Your task to perform on an android device: change the upload size in google photos Image 0: 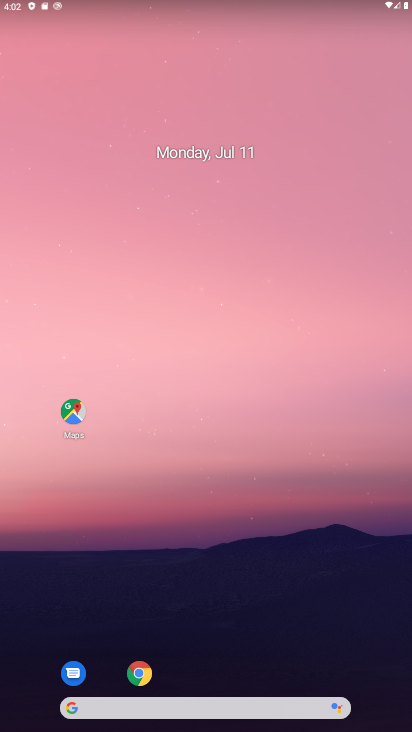
Step 0: drag from (365, 691) to (276, 52)
Your task to perform on an android device: change the upload size in google photos Image 1: 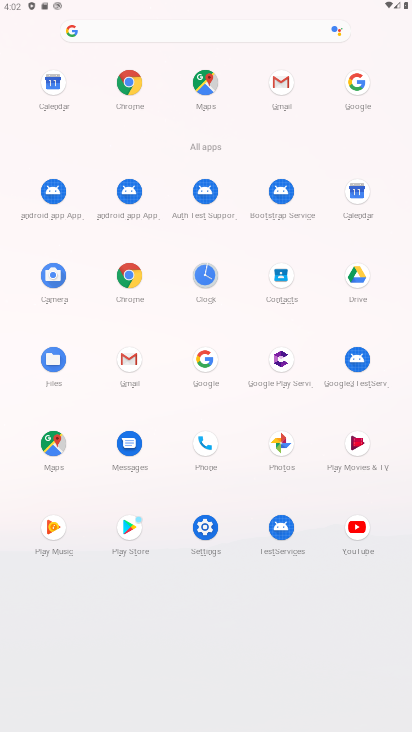
Step 1: click (292, 446)
Your task to perform on an android device: change the upload size in google photos Image 2: 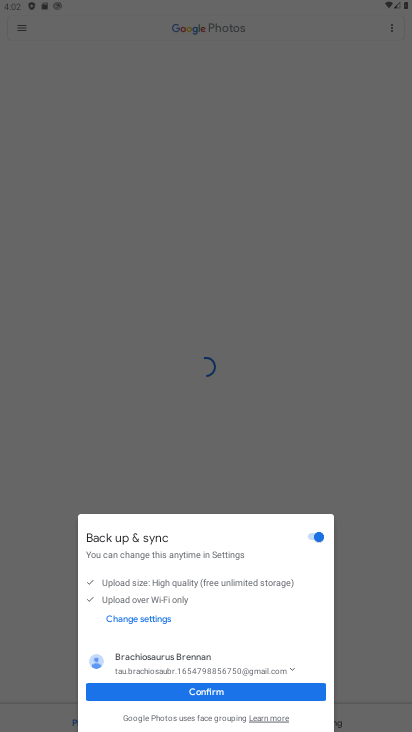
Step 2: click (159, 691)
Your task to perform on an android device: change the upload size in google photos Image 3: 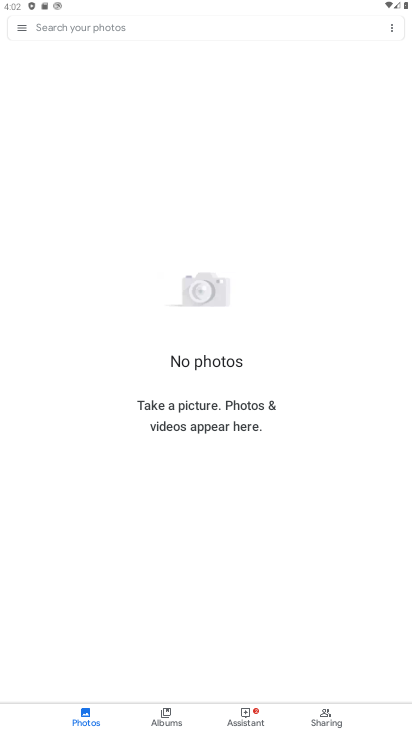
Step 3: click (20, 29)
Your task to perform on an android device: change the upload size in google photos Image 4: 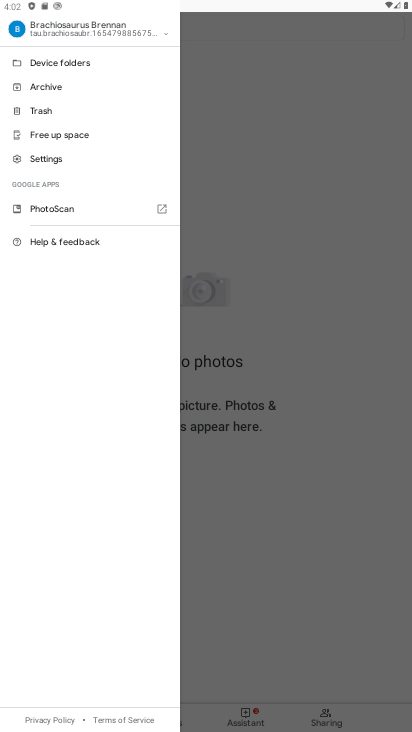
Step 4: click (58, 156)
Your task to perform on an android device: change the upload size in google photos Image 5: 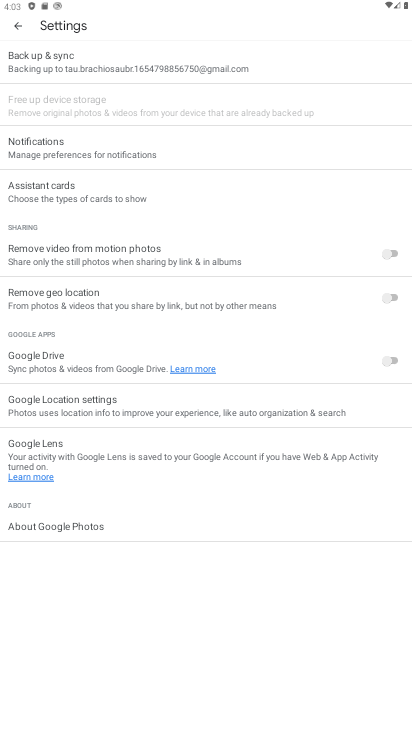
Step 5: task complete